Your task to perform on an android device: toggle airplane mode Image 0: 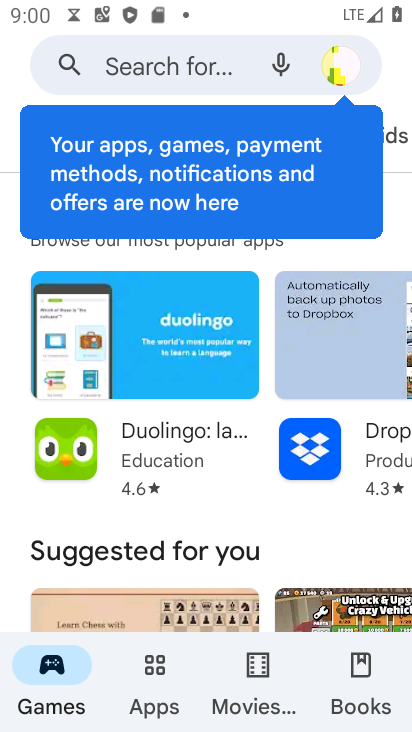
Step 0: press home button
Your task to perform on an android device: toggle airplane mode Image 1: 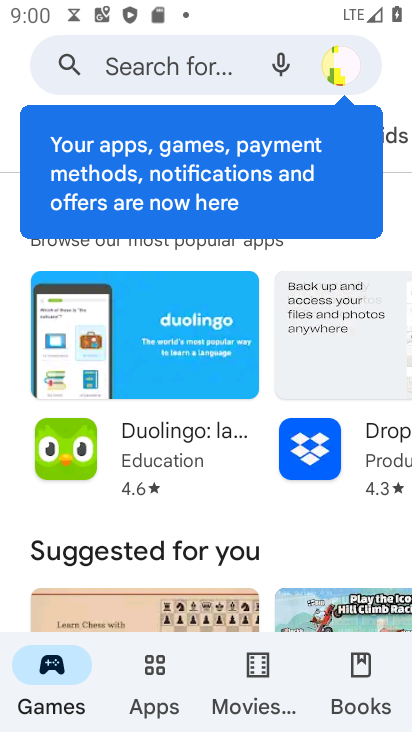
Step 1: press home button
Your task to perform on an android device: toggle airplane mode Image 2: 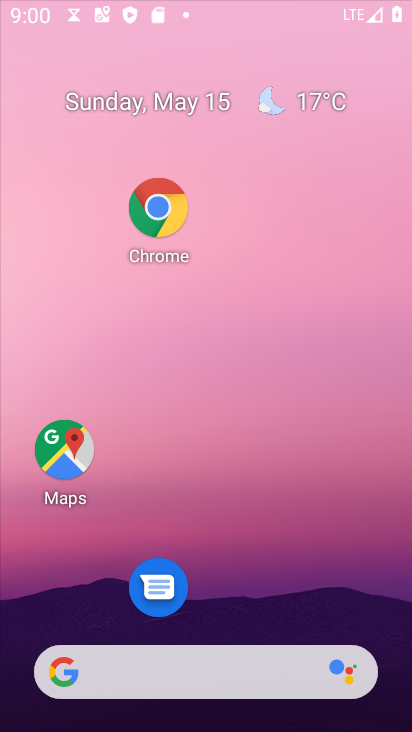
Step 2: press home button
Your task to perform on an android device: toggle airplane mode Image 3: 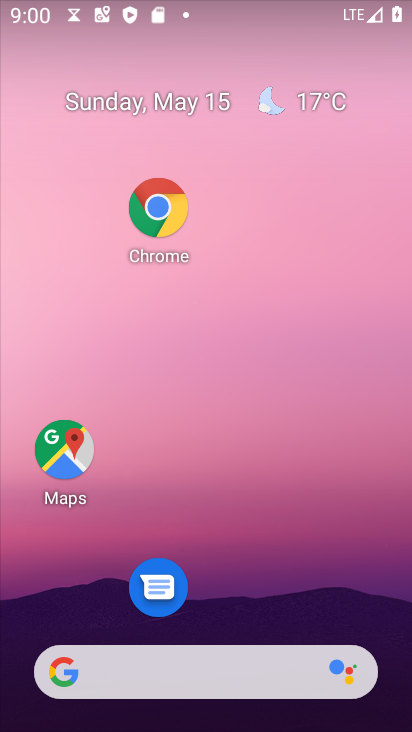
Step 3: drag from (284, 682) to (168, 270)
Your task to perform on an android device: toggle airplane mode Image 4: 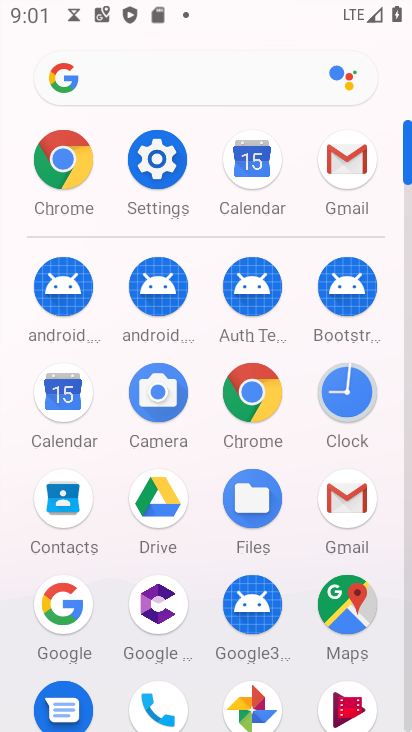
Step 4: click (152, 154)
Your task to perform on an android device: toggle airplane mode Image 5: 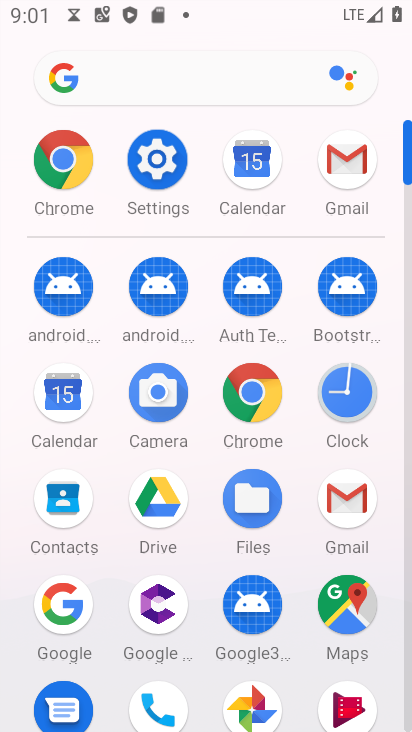
Step 5: click (152, 154)
Your task to perform on an android device: toggle airplane mode Image 6: 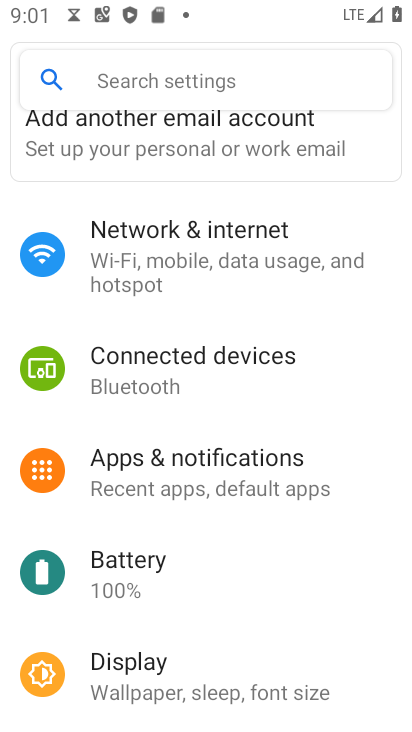
Step 6: click (161, 252)
Your task to perform on an android device: toggle airplane mode Image 7: 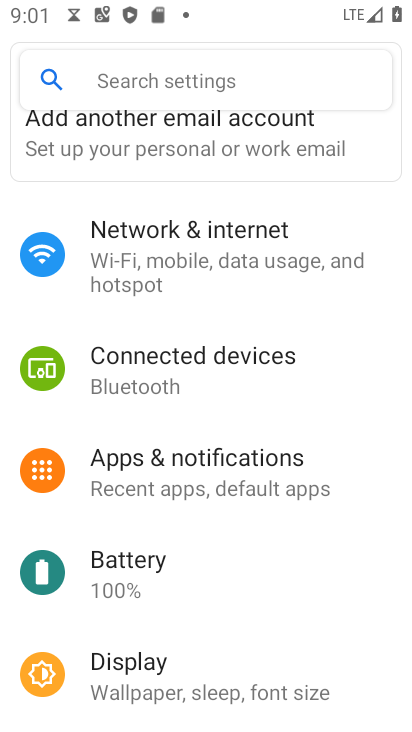
Step 7: click (161, 252)
Your task to perform on an android device: toggle airplane mode Image 8: 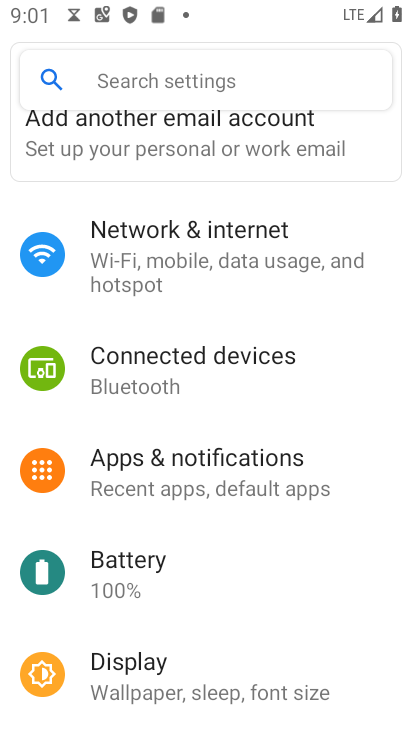
Step 8: click (165, 256)
Your task to perform on an android device: toggle airplane mode Image 9: 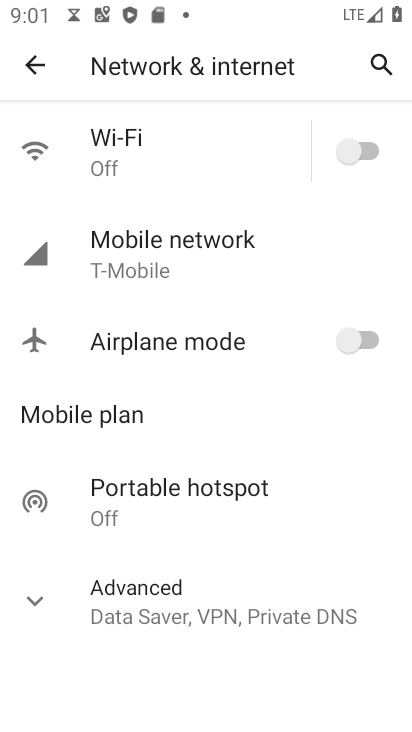
Step 9: click (353, 146)
Your task to perform on an android device: toggle airplane mode Image 10: 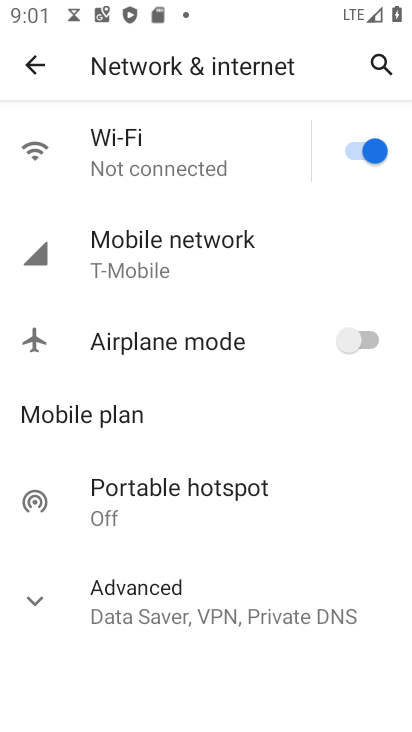
Step 10: click (372, 130)
Your task to perform on an android device: toggle airplane mode Image 11: 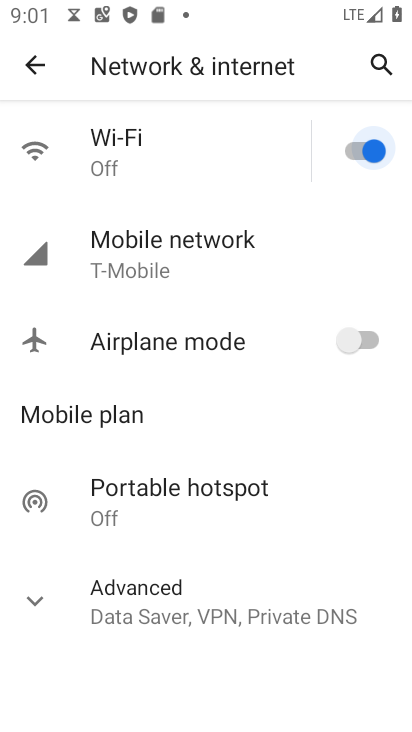
Step 11: click (369, 141)
Your task to perform on an android device: toggle airplane mode Image 12: 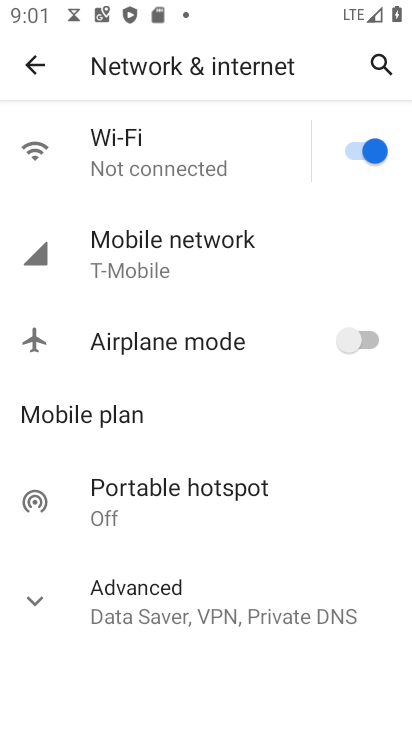
Step 12: click (356, 331)
Your task to perform on an android device: toggle airplane mode Image 13: 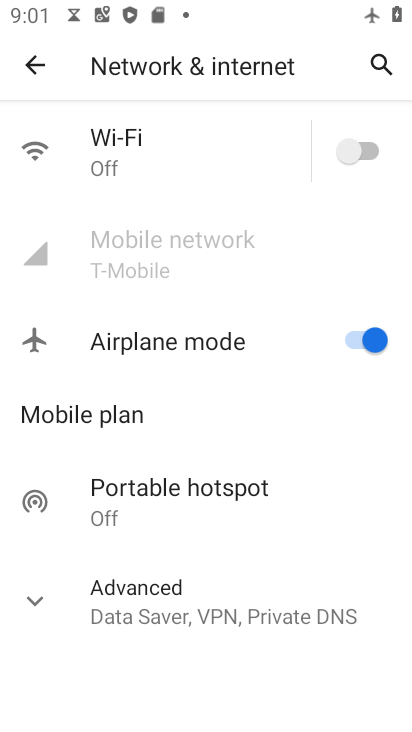
Step 13: click (372, 145)
Your task to perform on an android device: toggle airplane mode Image 14: 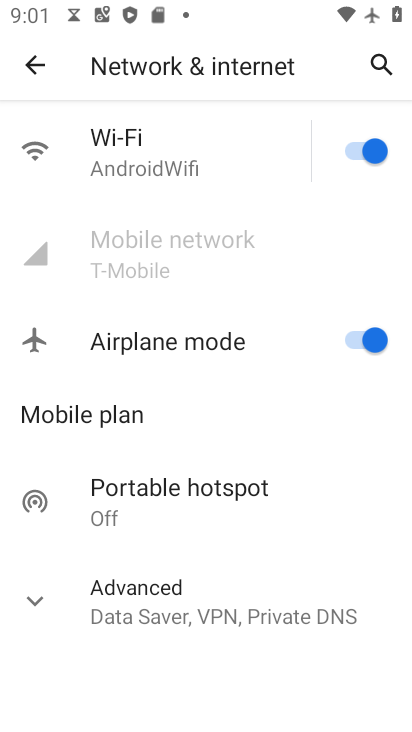
Step 14: click (373, 144)
Your task to perform on an android device: toggle airplane mode Image 15: 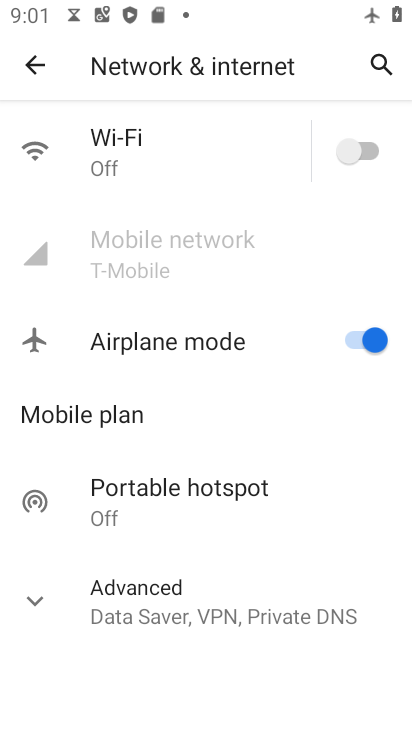
Step 15: click (383, 156)
Your task to perform on an android device: toggle airplane mode Image 16: 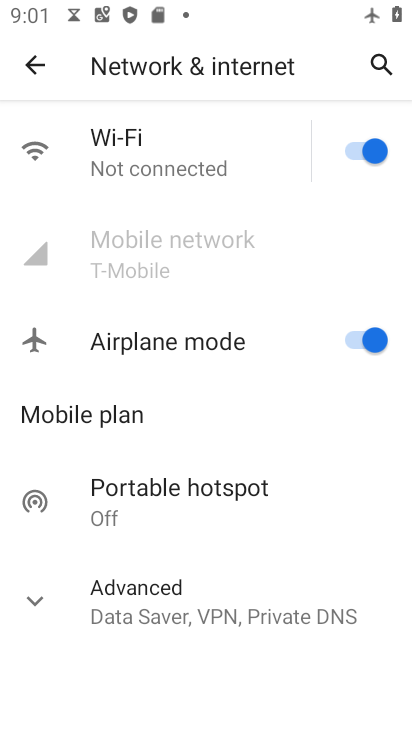
Step 16: task complete